Your task to perform on an android device: Open Wikipedia Image 0: 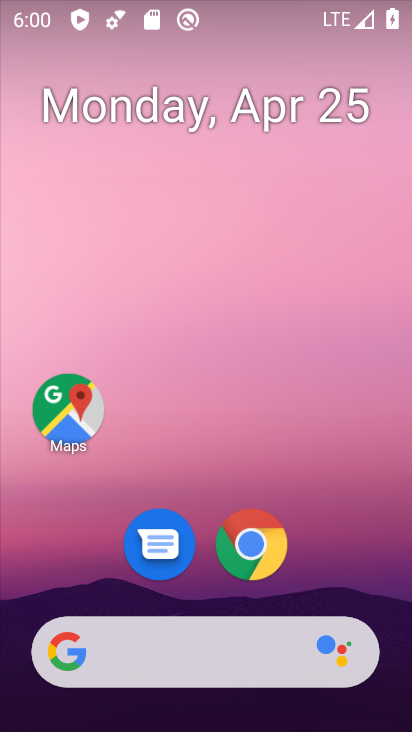
Step 0: click (252, 549)
Your task to perform on an android device: Open Wikipedia Image 1: 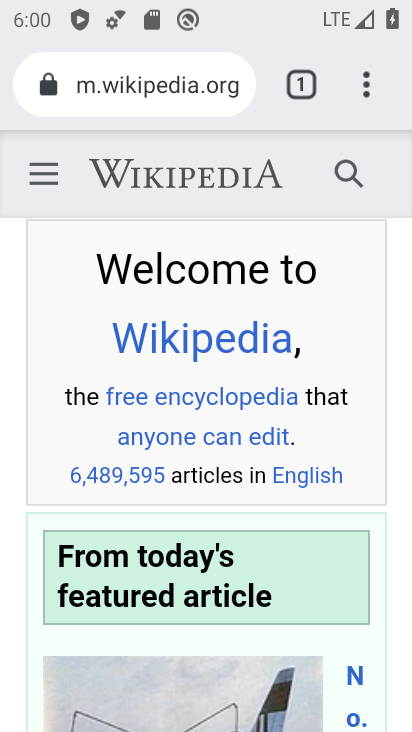
Step 1: task complete